Your task to perform on an android device: create a new album in the google photos Image 0: 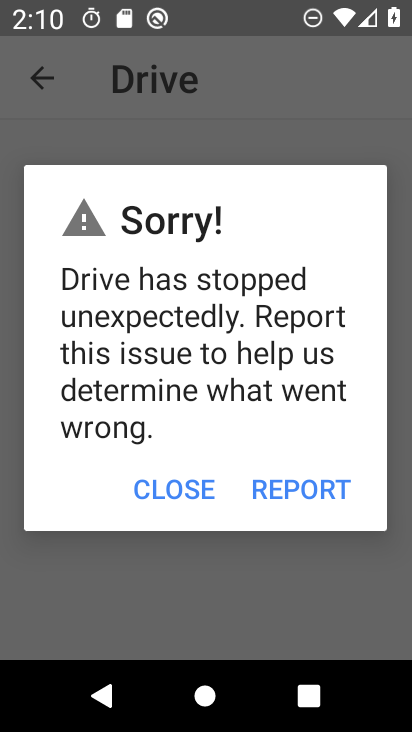
Step 0: press home button
Your task to perform on an android device: create a new album in the google photos Image 1: 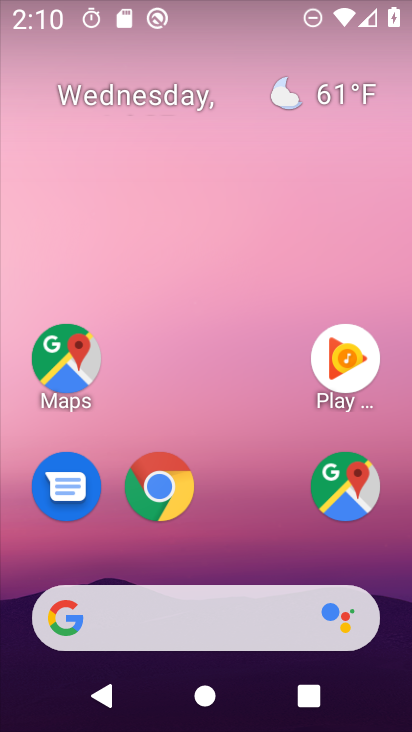
Step 1: drag from (251, 515) to (250, 104)
Your task to perform on an android device: create a new album in the google photos Image 2: 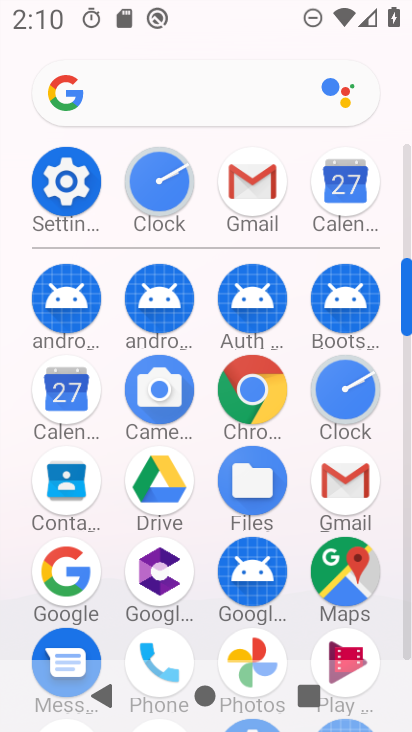
Step 2: click (242, 667)
Your task to perform on an android device: create a new album in the google photos Image 3: 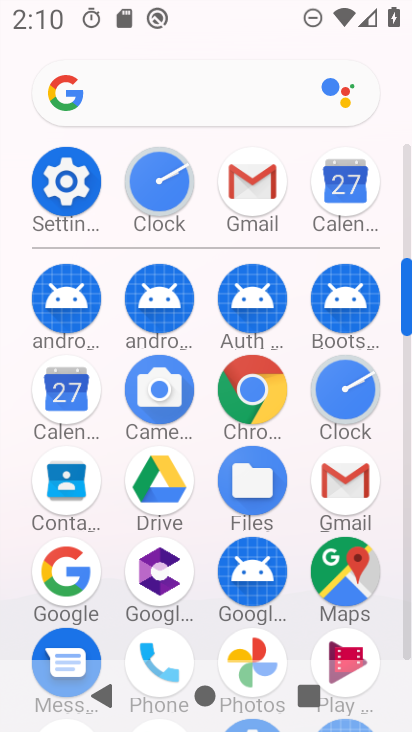
Step 3: drag from (384, 506) to (396, 276)
Your task to perform on an android device: create a new album in the google photos Image 4: 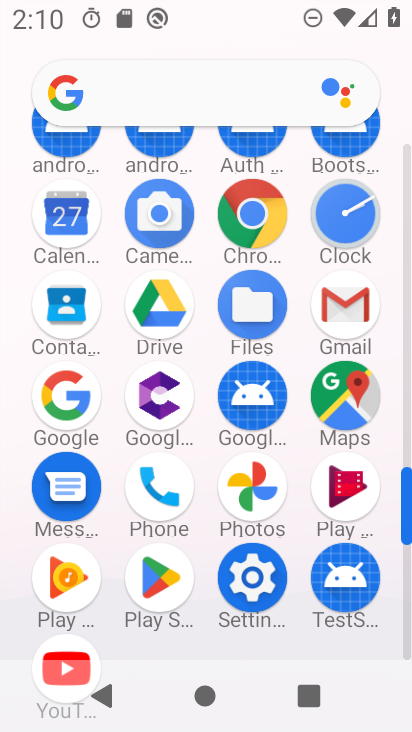
Step 4: click (254, 486)
Your task to perform on an android device: create a new album in the google photos Image 5: 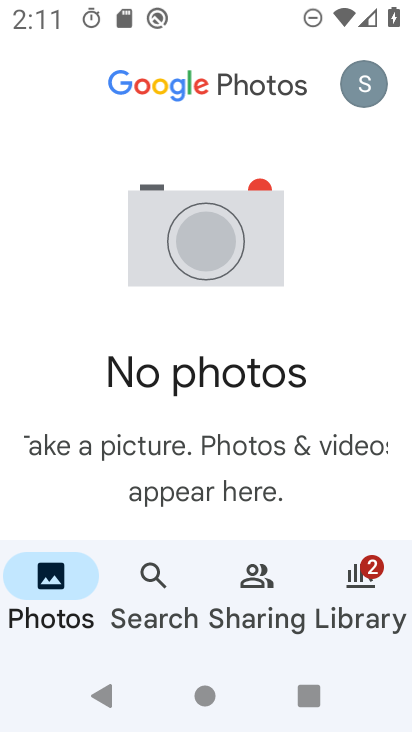
Step 5: click (361, 601)
Your task to perform on an android device: create a new album in the google photos Image 6: 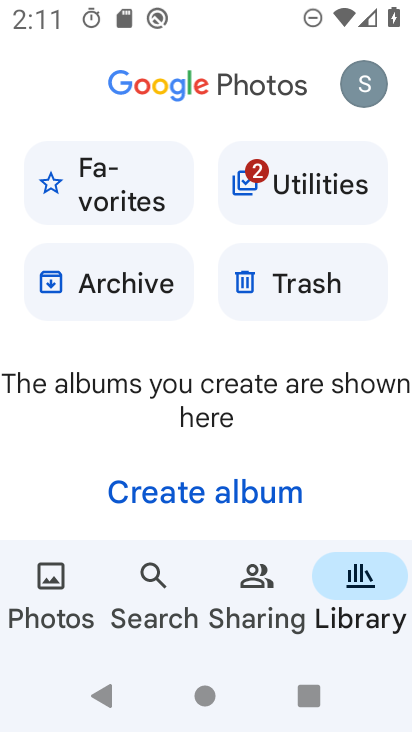
Step 6: click (257, 489)
Your task to perform on an android device: create a new album in the google photos Image 7: 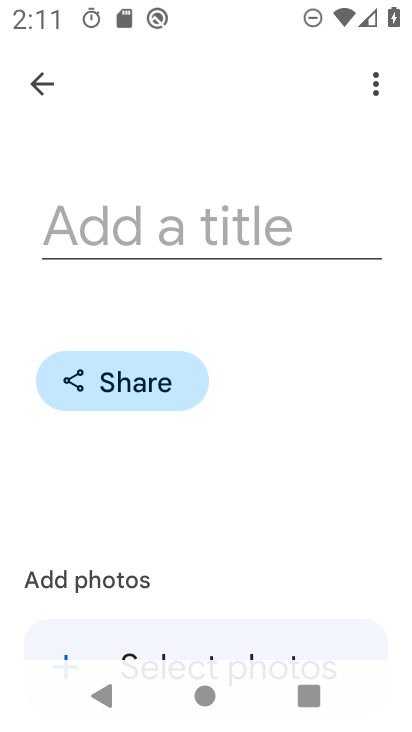
Step 7: click (206, 248)
Your task to perform on an android device: create a new album in the google photos Image 8: 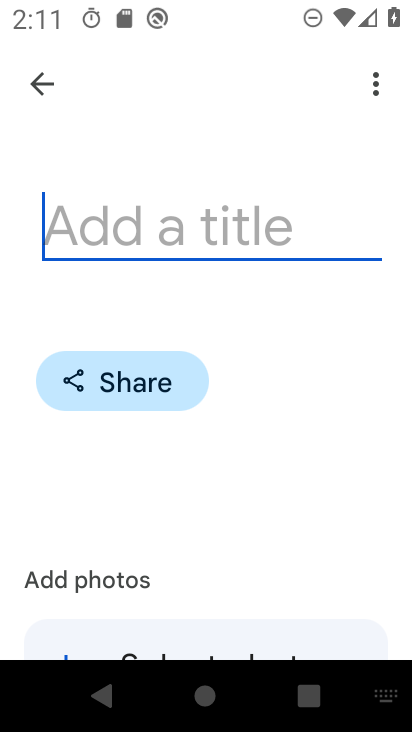
Step 8: type "fff"
Your task to perform on an android device: create a new album in the google photos Image 9: 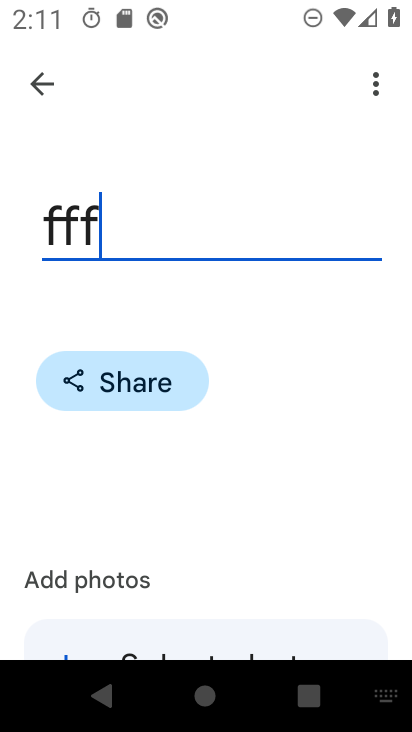
Step 9: drag from (278, 486) to (287, 337)
Your task to perform on an android device: create a new album in the google photos Image 10: 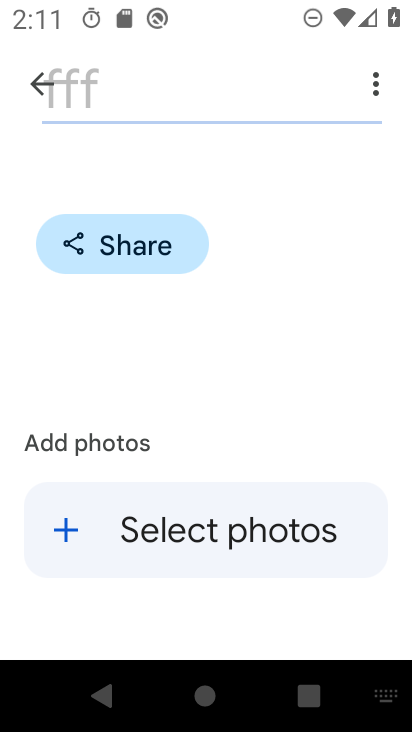
Step 10: click (286, 517)
Your task to perform on an android device: create a new album in the google photos Image 11: 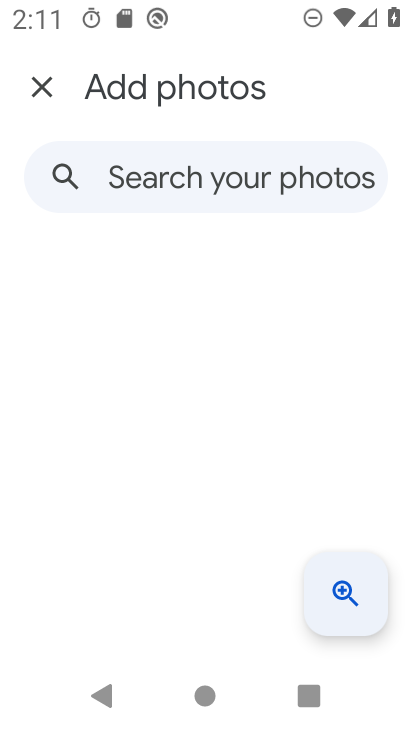
Step 11: task complete